Your task to perform on an android device: toggle airplane mode Image 0: 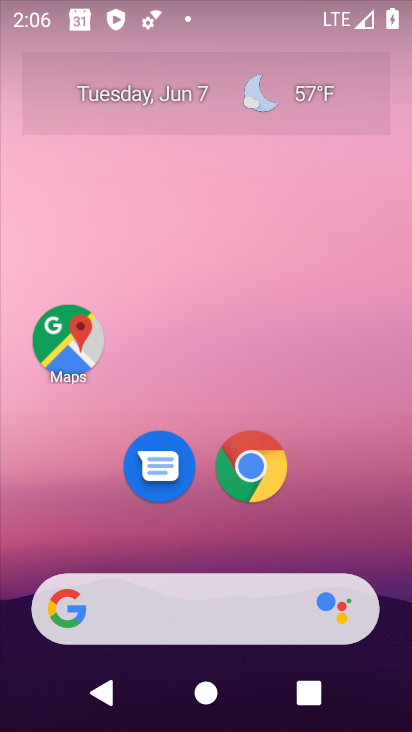
Step 0: drag from (341, 46) to (238, 517)
Your task to perform on an android device: toggle airplane mode Image 1: 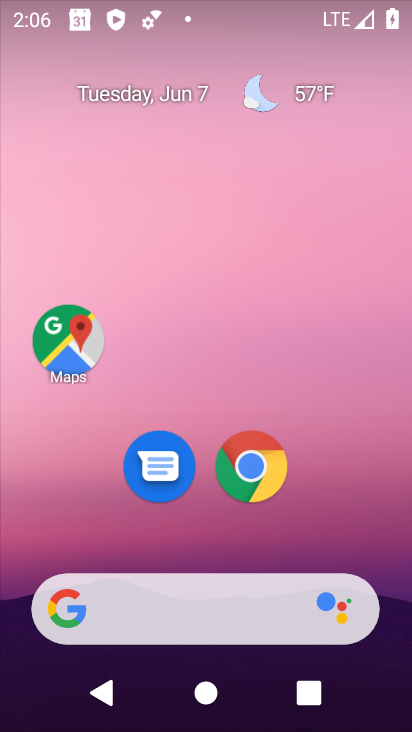
Step 1: drag from (277, 16) to (176, 516)
Your task to perform on an android device: toggle airplane mode Image 2: 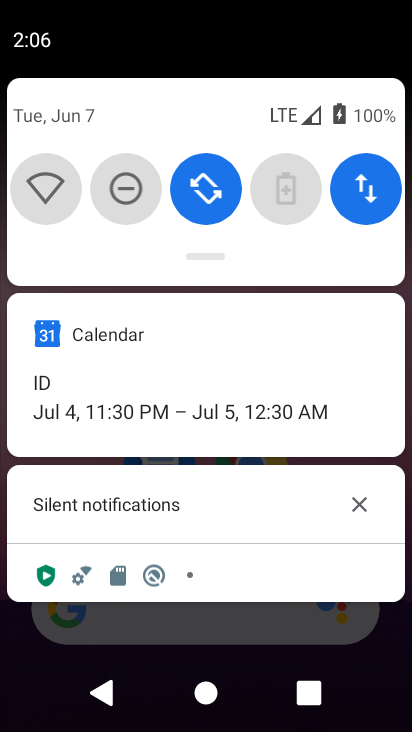
Step 2: drag from (201, 241) to (181, 578)
Your task to perform on an android device: toggle airplane mode Image 3: 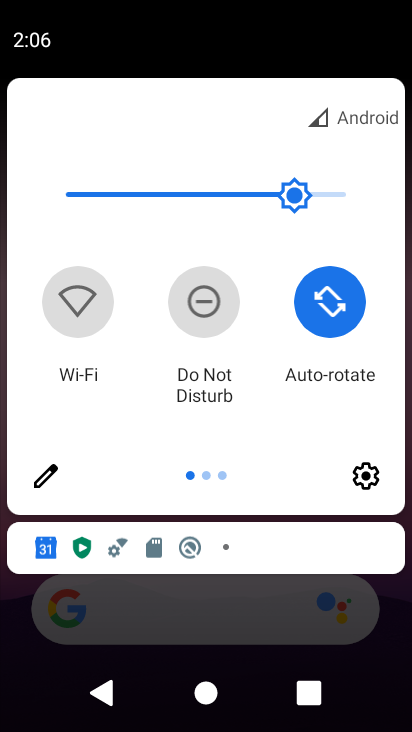
Step 3: drag from (274, 312) to (16, 296)
Your task to perform on an android device: toggle airplane mode Image 4: 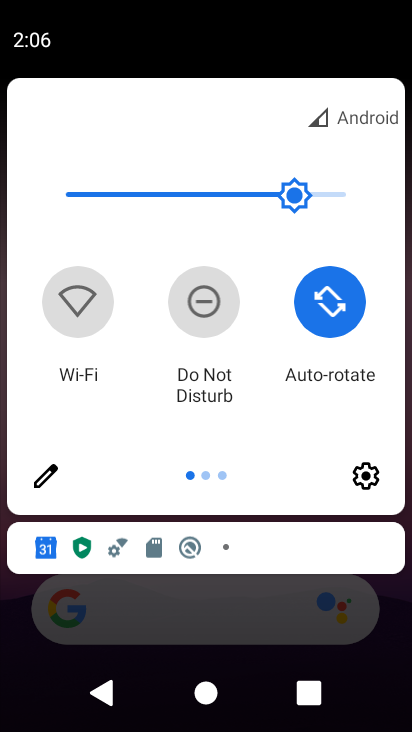
Step 4: drag from (348, 321) to (19, 314)
Your task to perform on an android device: toggle airplane mode Image 5: 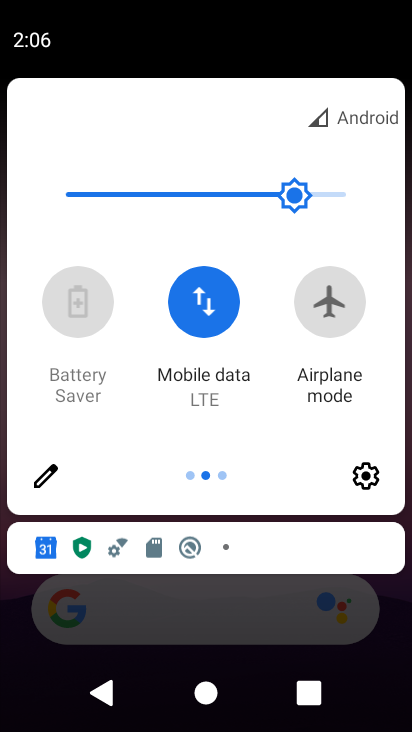
Step 5: click (331, 294)
Your task to perform on an android device: toggle airplane mode Image 6: 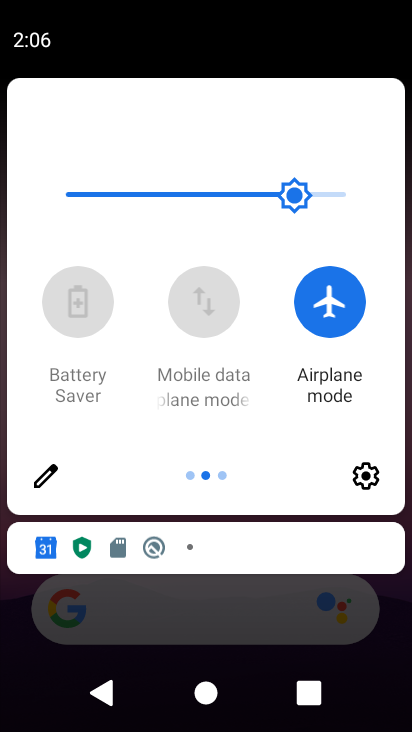
Step 6: task complete